Your task to perform on an android device: Go to Amazon Image 0: 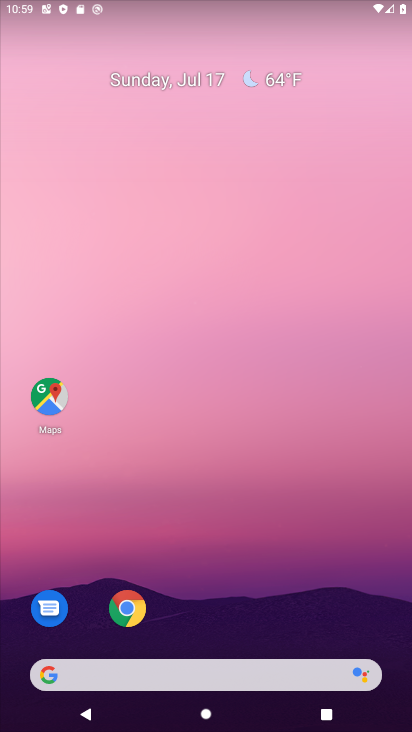
Step 0: drag from (386, 652) to (174, 30)
Your task to perform on an android device: Go to Amazon Image 1: 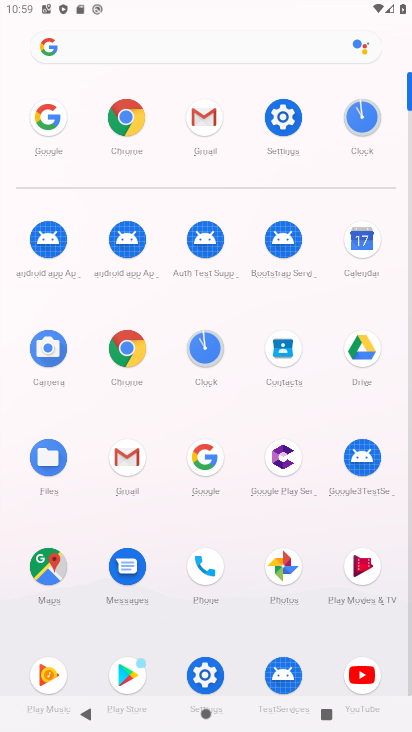
Step 1: click (205, 462)
Your task to perform on an android device: Go to Amazon Image 2: 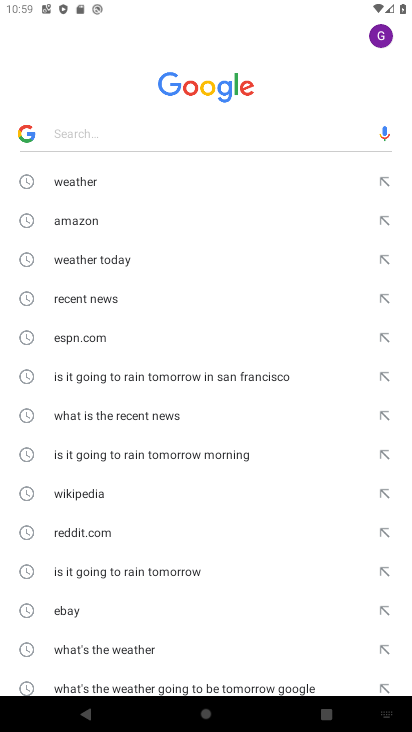
Step 2: drag from (116, 596) to (79, 334)
Your task to perform on an android device: Go to Amazon Image 3: 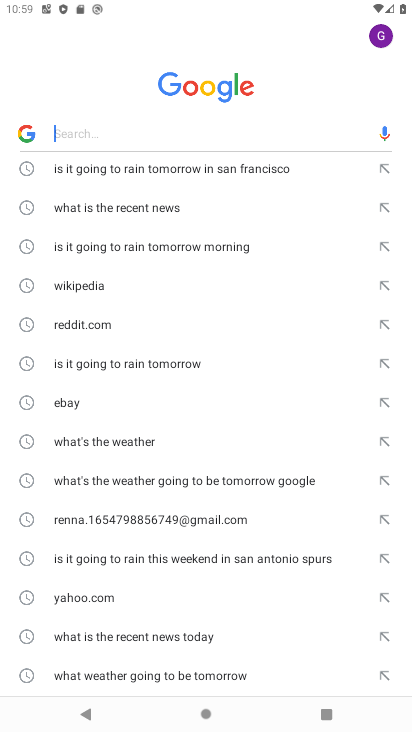
Step 3: drag from (85, 235) to (121, 641)
Your task to perform on an android device: Go to Amazon Image 4: 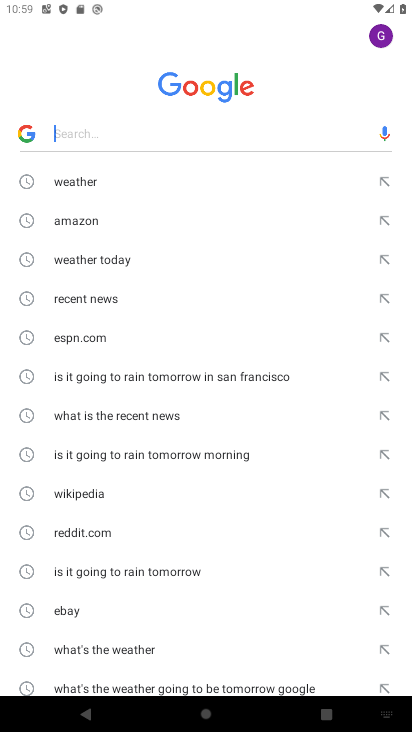
Step 4: click (81, 232)
Your task to perform on an android device: Go to Amazon Image 5: 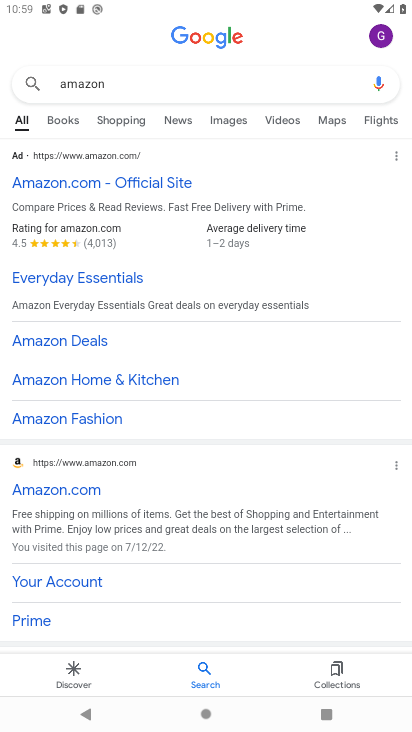
Step 5: task complete